Your task to perform on an android device: Go to privacy settings Image 0: 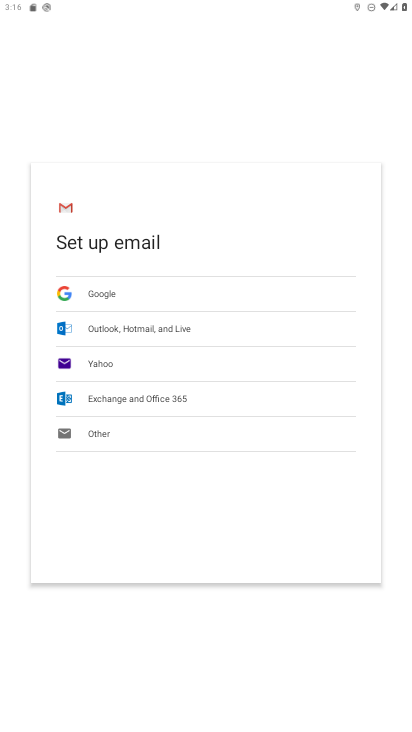
Step 0: press home button
Your task to perform on an android device: Go to privacy settings Image 1: 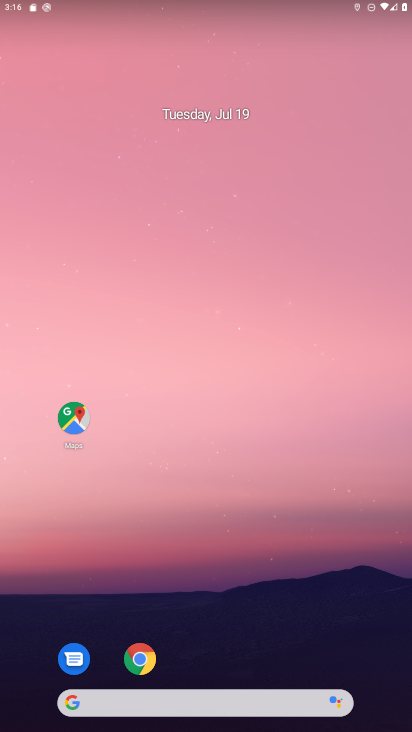
Step 1: drag from (245, 645) to (207, 41)
Your task to perform on an android device: Go to privacy settings Image 2: 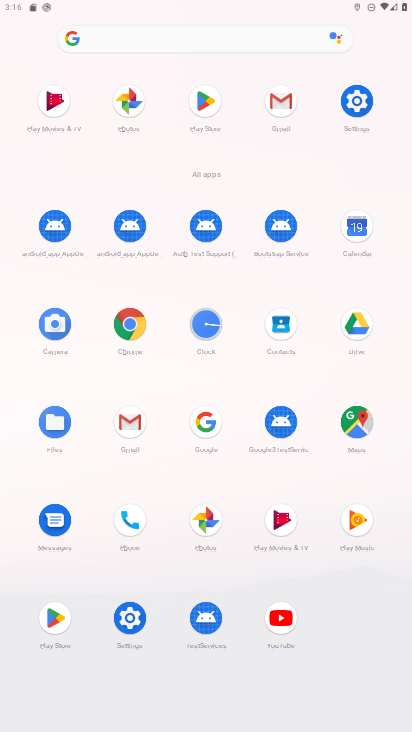
Step 2: click (350, 99)
Your task to perform on an android device: Go to privacy settings Image 3: 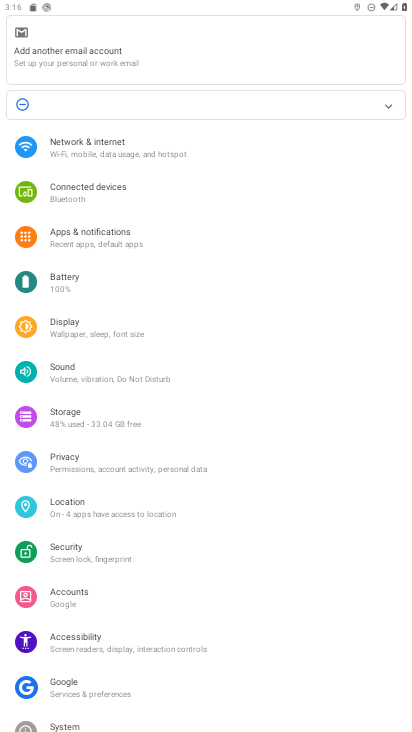
Step 3: click (125, 466)
Your task to perform on an android device: Go to privacy settings Image 4: 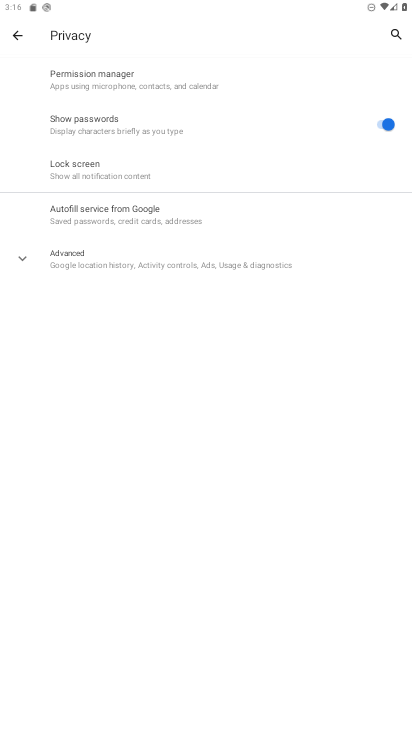
Step 4: task complete